Your task to perform on an android device: toggle notification dots Image 0: 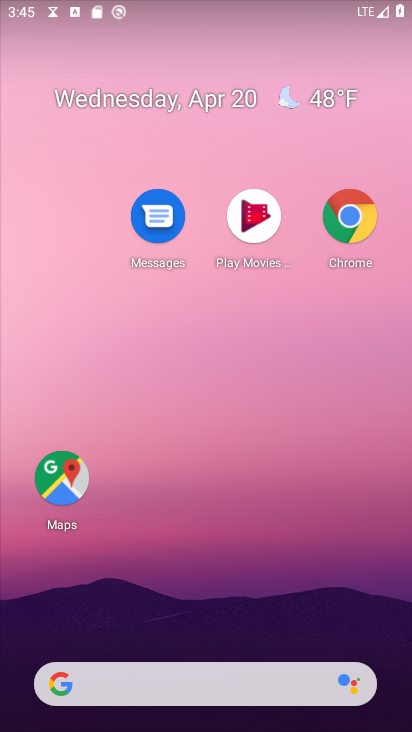
Step 0: drag from (281, 590) to (263, 105)
Your task to perform on an android device: toggle notification dots Image 1: 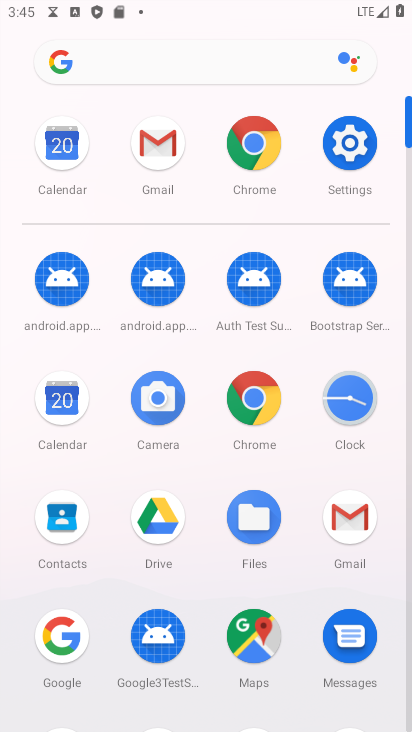
Step 1: click (347, 150)
Your task to perform on an android device: toggle notification dots Image 2: 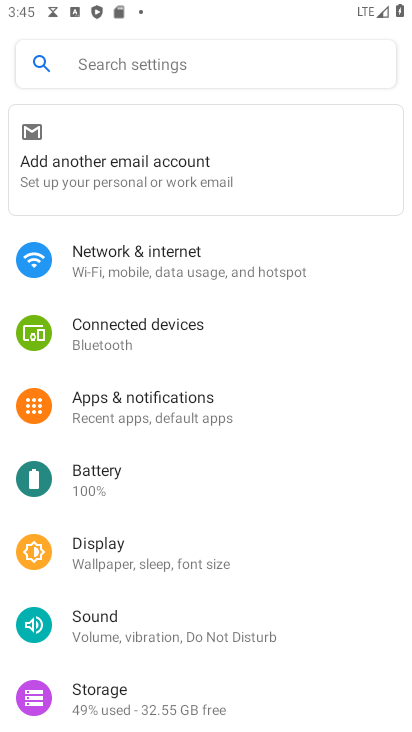
Step 2: click (178, 406)
Your task to perform on an android device: toggle notification dots Image 3: 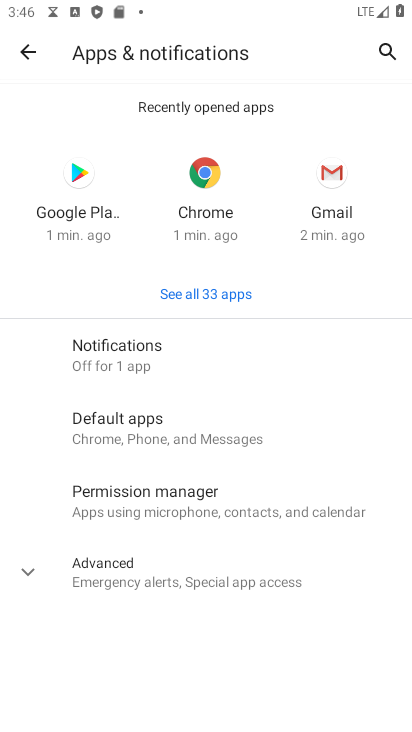
Step 3: click (142, 577)
Your task to perform on an android device: toggle notification dots Image 4: 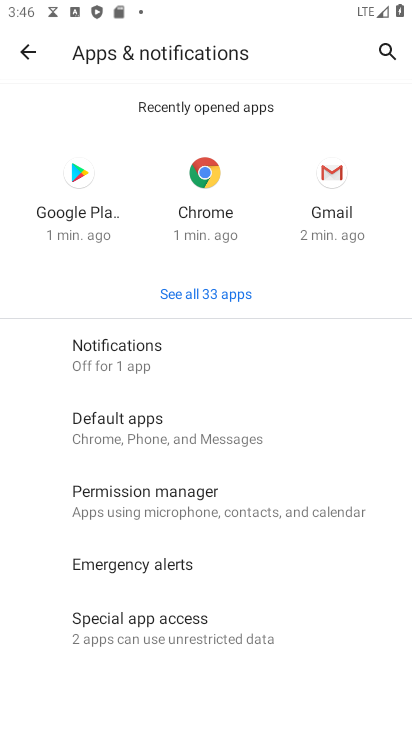
Step 4: drag from (145, 578) to (153, 351)
Your task to perform on an android device: toggle notification dots Image 5: 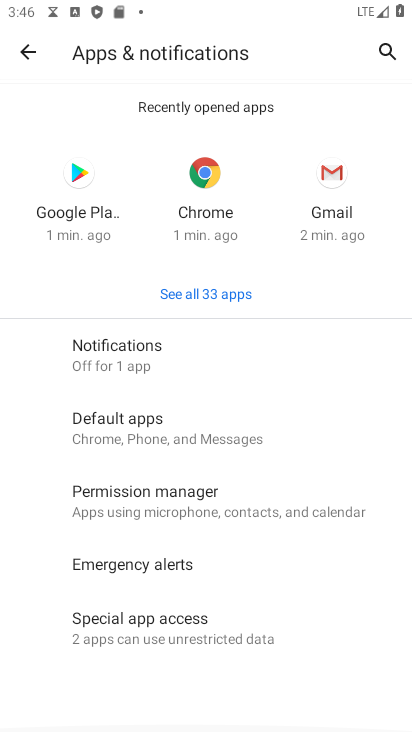
Step 5: click (178, 645)
Your task to perform on an android device: toggle notification dots Image 6: 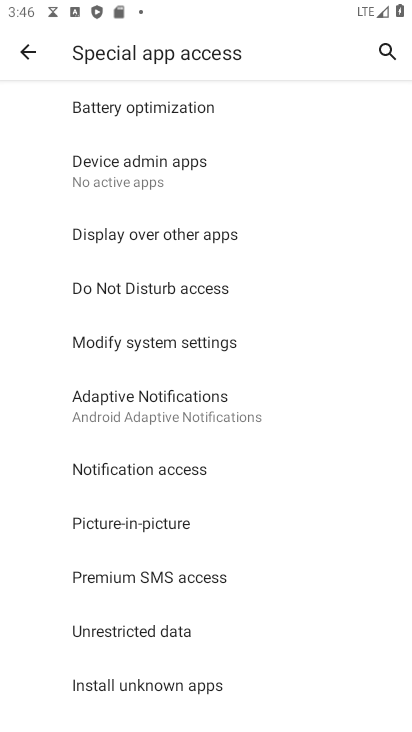
Step 6: click (31, 59)
Your task to perform on an android device: toggle notification dots Image 7: 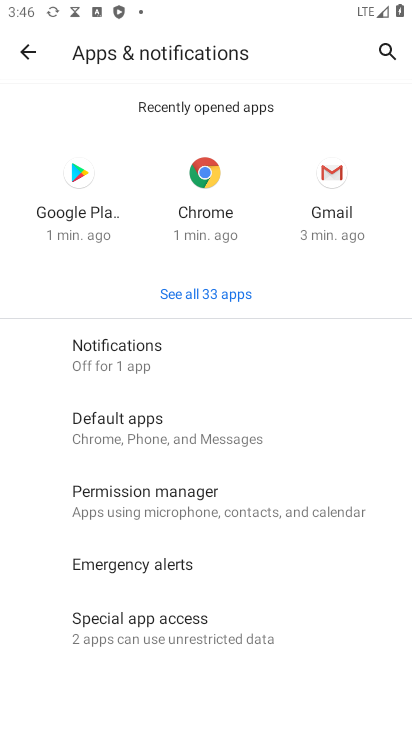
Step 7: click (134, 362)
Your task to perform on an android device: toggle notification dots Image 8: 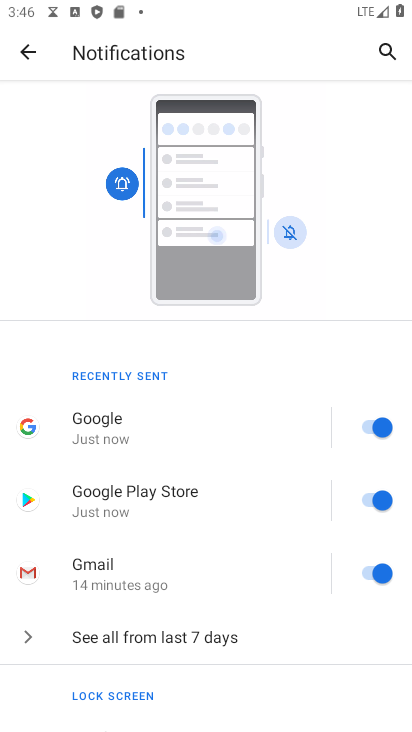
Step 8: drag from (177, 636) to (149, 189)
Your task to perform on an android device: toggle notification dots Image 9: 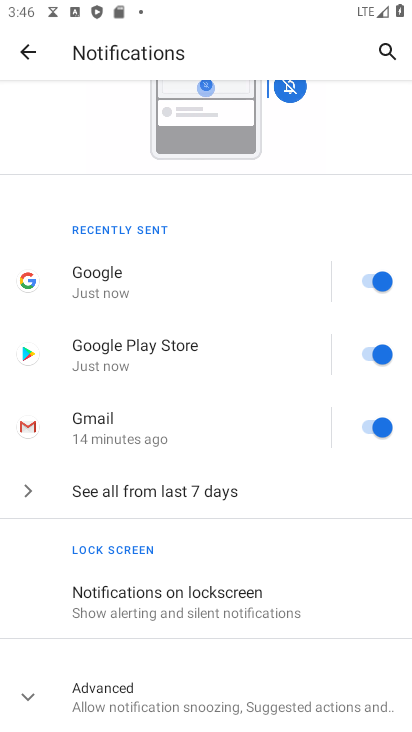
Step 9: click (155, 708)
Your task to perform on an android device: toggle notification dots Image 10: 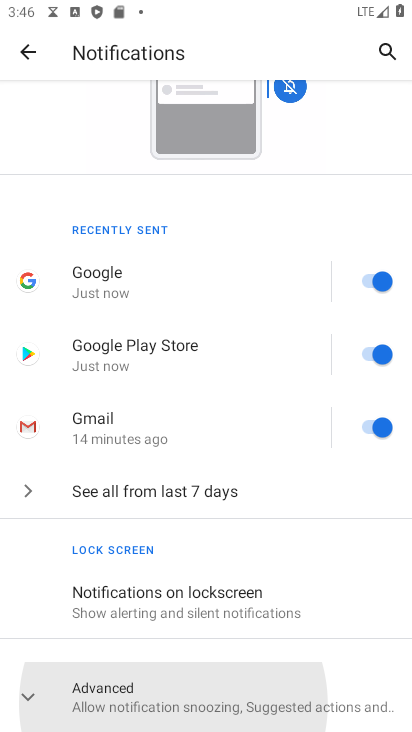
Step 10: drag from (149, 526) to (139, 220)
Your task to perform on an android device: toggle notification dots Image 11: 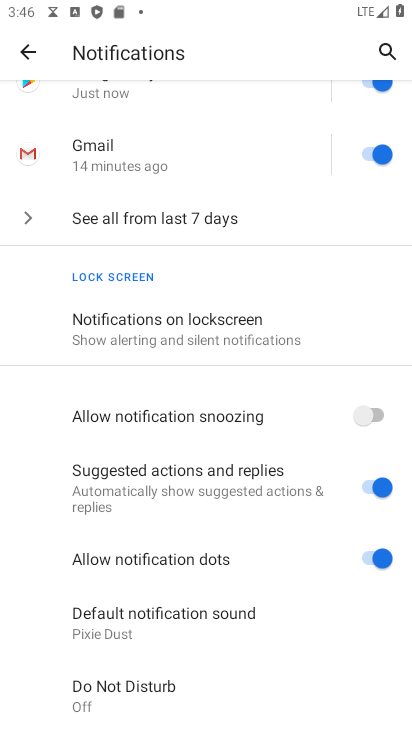
Step 11: click (385, 556)
Your task to perform on an android device: toggle notification dots Image 12: 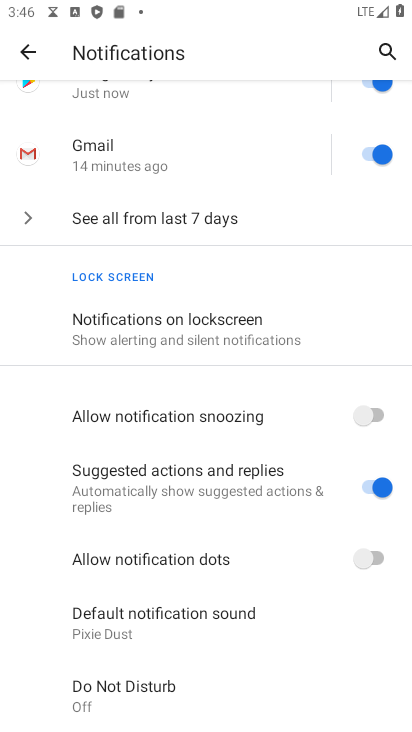
Step 12: task complete